Your task to perform on an android device: Do I have any events today? Image 0: 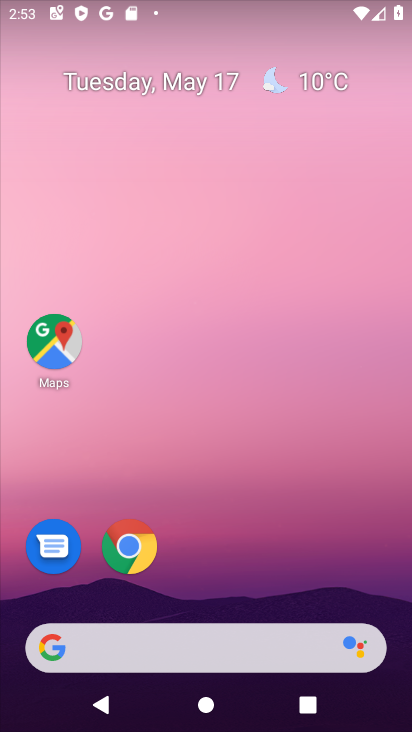
Step 0: drag from (241, 484) to (208, 16)
Your task to perform on an android device: Do I have any events today? Image 1: 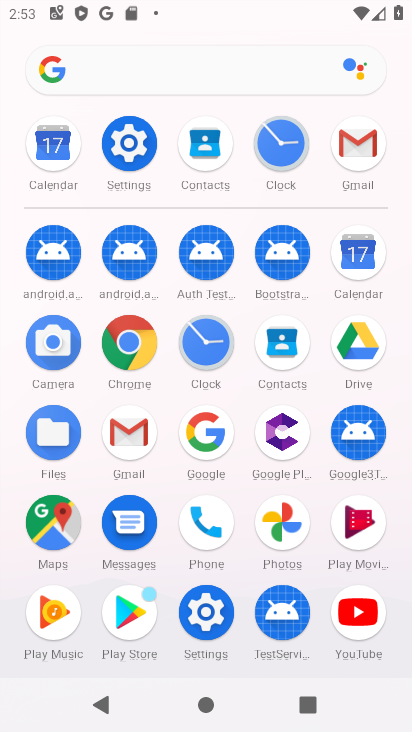
Step 1: click (358, 268)
Your task to perform on an android device: Do I have any events today? Image 2: 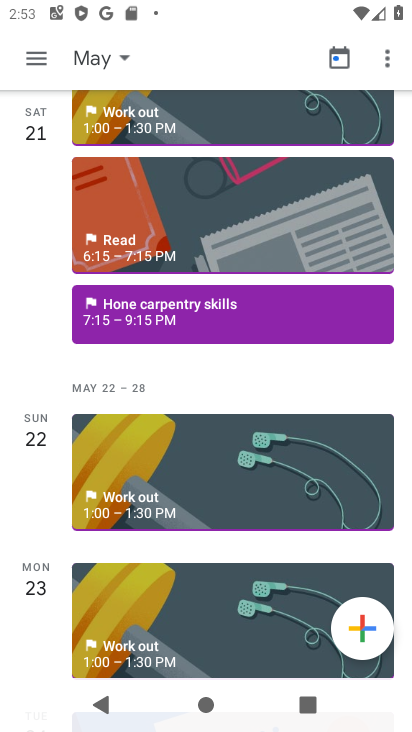
Step 2: drag from (117, 328) to (124, 619)
Your task to perform on an android device: Do I have any events today? Image 3: 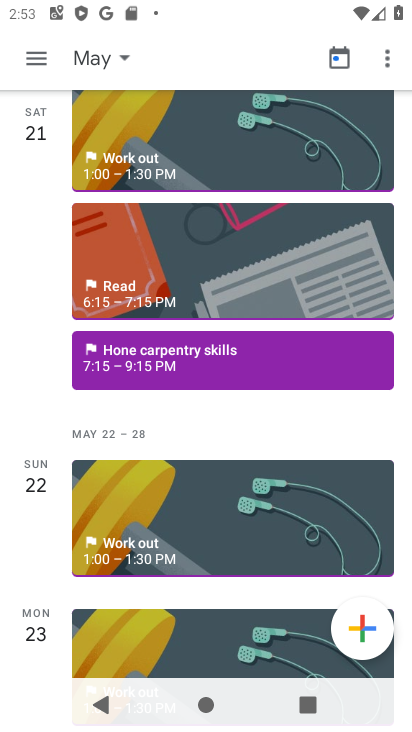
Step 3: click (31, 49)
Your task to perform on an android device: Do I have any events today? Image 4: 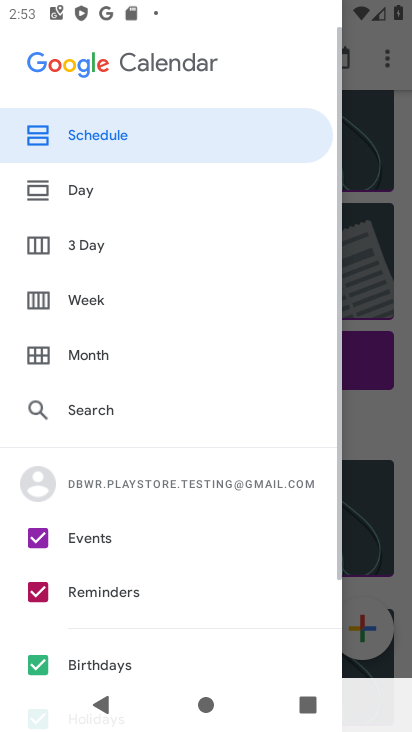
Step 4: click (87, 196)
Your task to perform on an android device: Do I have any events today? Image 5: 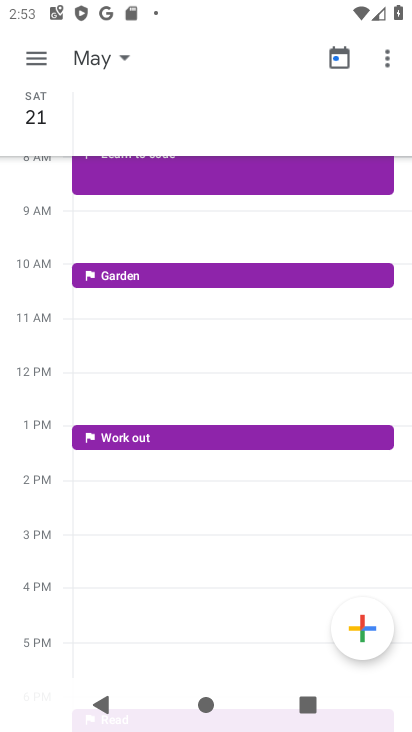
Step 5: task complete